Your task to perform on an android device: find photos in the google photos app Image 0: 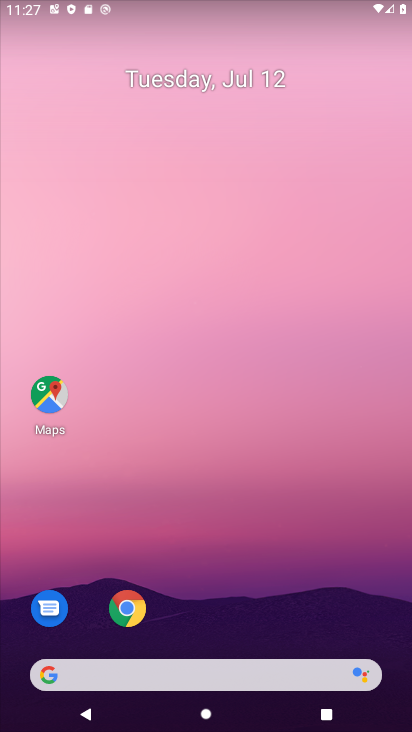
Step 0: drag from (244, 725) to (234, 648)
Your task to perform on an android device: find photos in the google photos app Image 1: 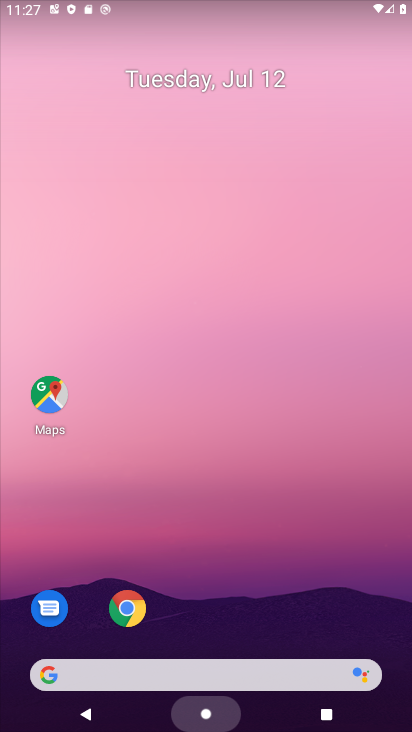
Step 1: drag from (220, 279) to (220, 130)
Your task to perform on an android device: find photos in the google photos app Image 2: 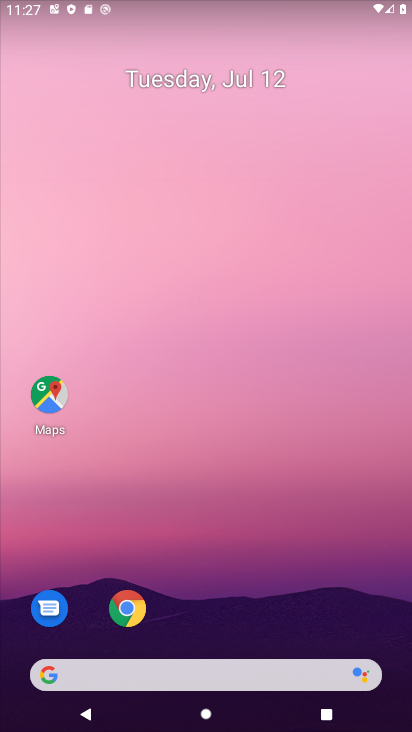
Step 2: drag from (240, 708) to (225, 144)
Your task to perform on an android device: find photos in the google photos app Image 3: 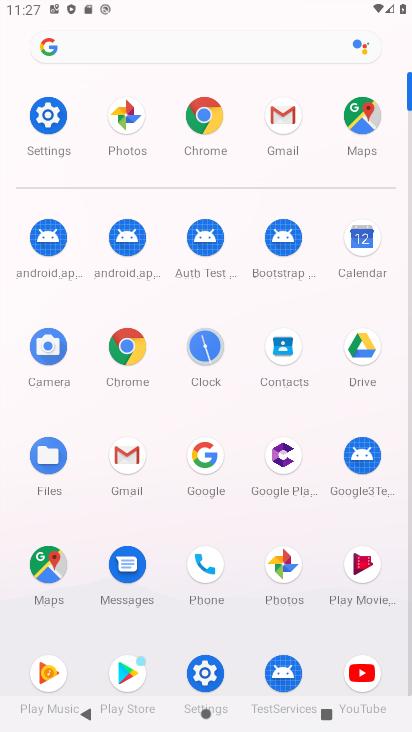
Step 3: click (288, 563)
Your task to perform on an android device: find photos in the google photos app Image 4: 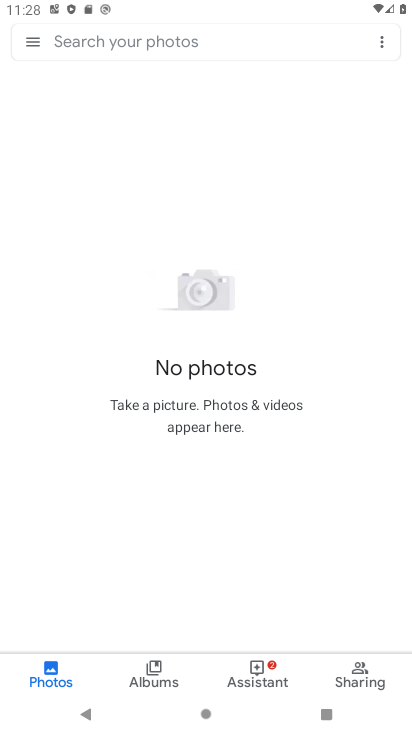
Step 4: task complete